Your task to perform on an android device: stop showing notifications on the lock screen Image 0: 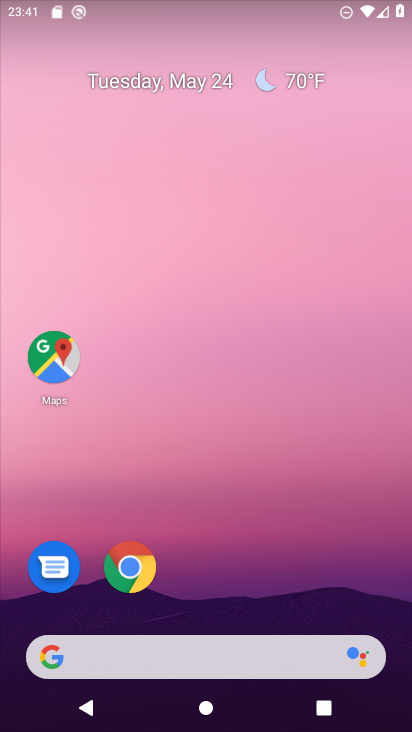
Step 0: drag from (283, 508) to (213, 10)
Your task to perform on an android device: stop showing notifications on the lock screen Image 1: 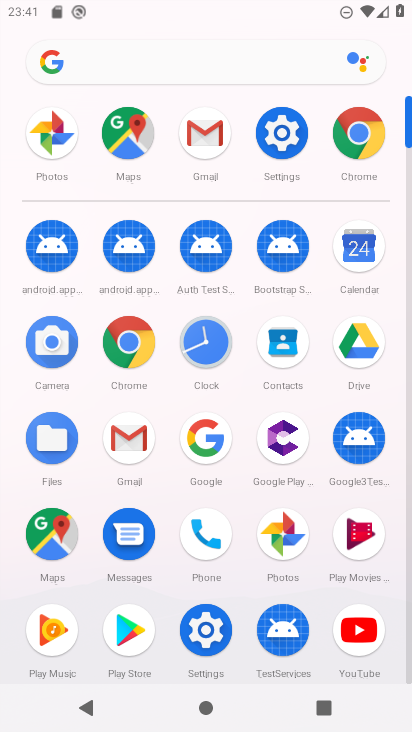
Step 1: click (287, 142)
Your task to perform on an android device: stop showing notifications on the lock screen Image 2: 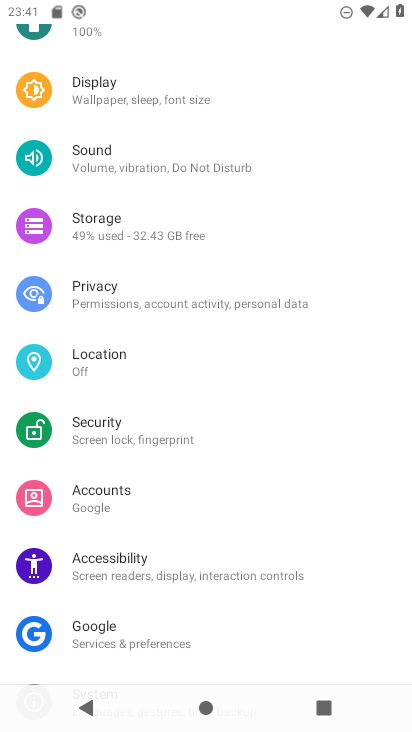
Step 2: drag from (222, 318) to (241, 548)
Your task to perform on an android device: stop showing notifications on the lock screen Image 3: 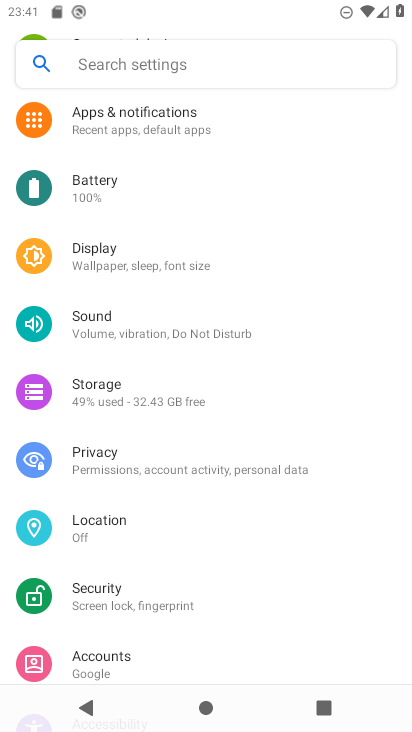
Step 3: click (212, 126)
Your task to perform on an android device: stop showing notifications on the lock screen Image 4: 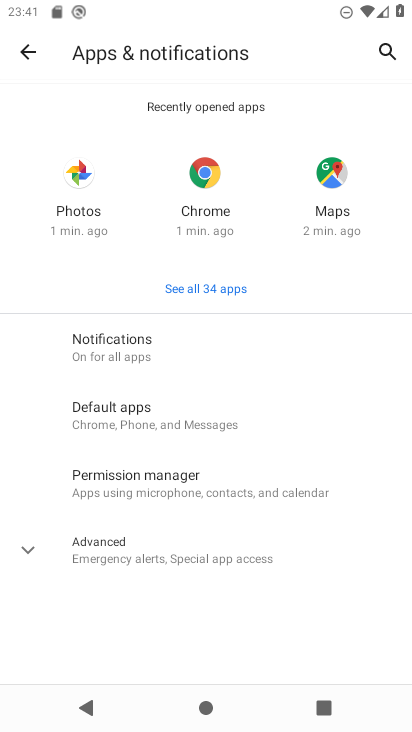
Step 4: click (152, 346)
Your task to perform on an android device: stop showing notifications on the lock screen Image 5: 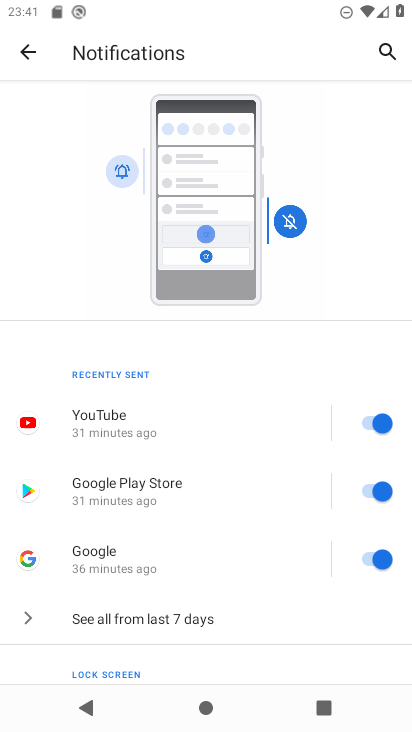
Step 5: drag from (235, 562) to (225, 220)
Your task to perform on an android device: stop showing notifications on the lock screen Image 6: 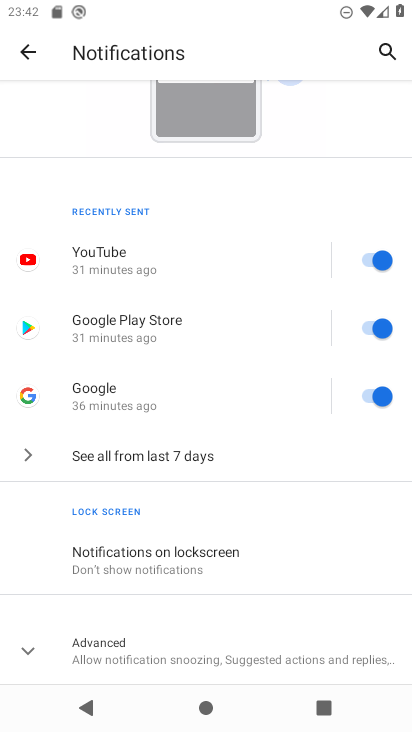
Step 6: click (191, 551)
Your task to perform on an android device: stop showing notifications on the lock screen Image 7: 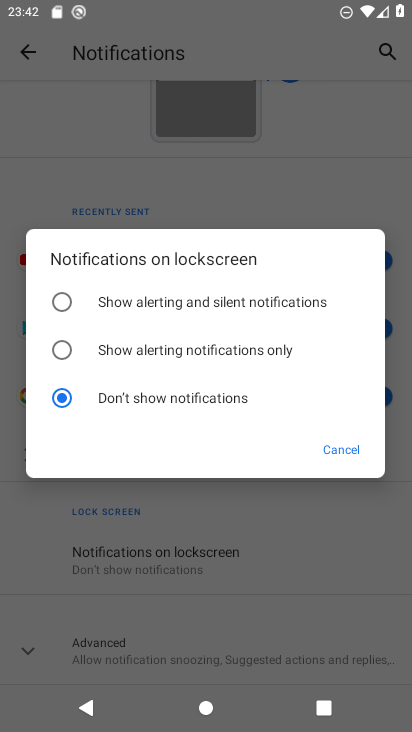
Step 7: task complete